Your task to perform on an android device: add a label to a message in the gmail app Image 0: 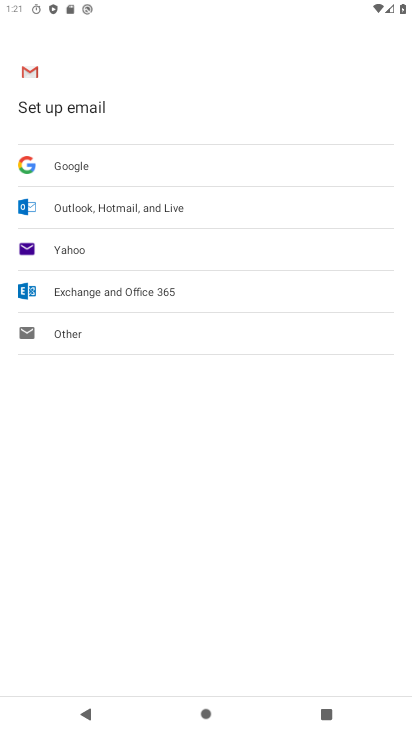
Step 0: drag from (216, 438) to (235, 291)
Your task to perform on an android device: add a label to a message in the gmail app Image 1: 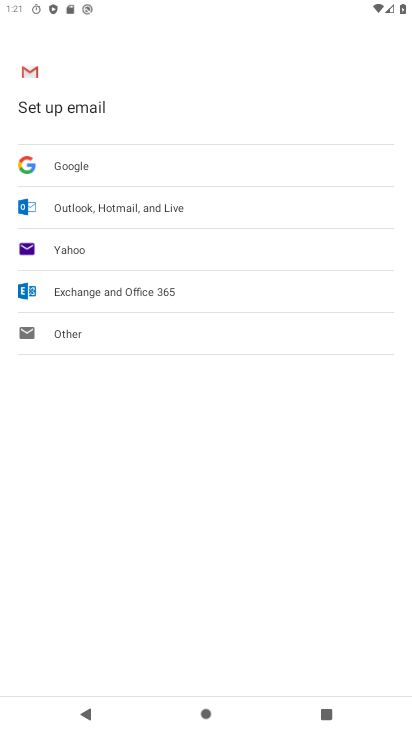
Step 1: press home button
Your task to perform on an android device: add a label to a message in the gmail app Image 2: 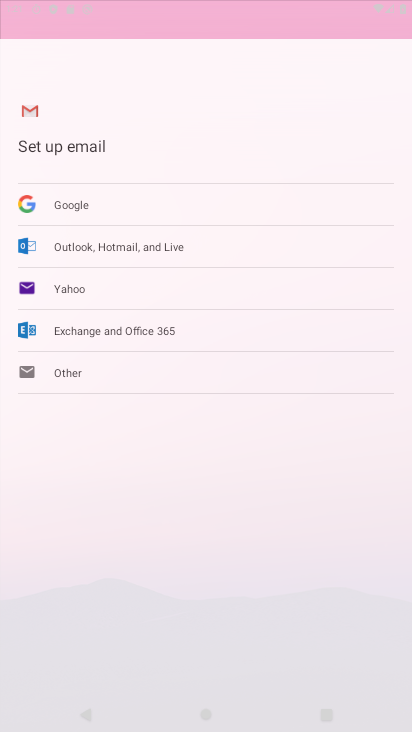
Step 2: drag from (277, 517) to (353, 113)
Your task to perform on an android device: add a label to a message in the gmail app Image 3: 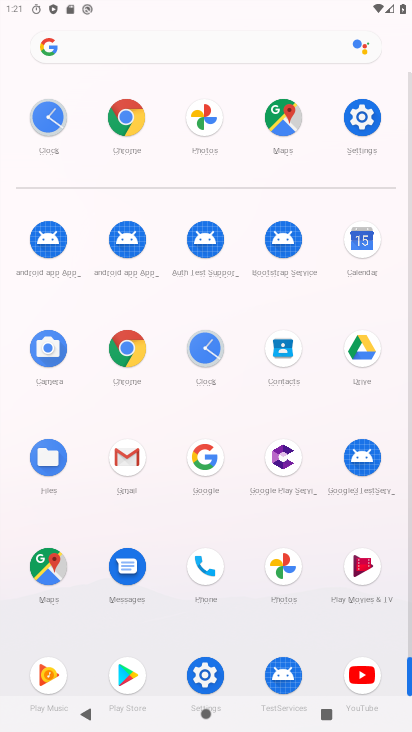
Step 3: click (121, 457)
Your task to perform on an android device: add a label to a message in the gmail app Image 4: 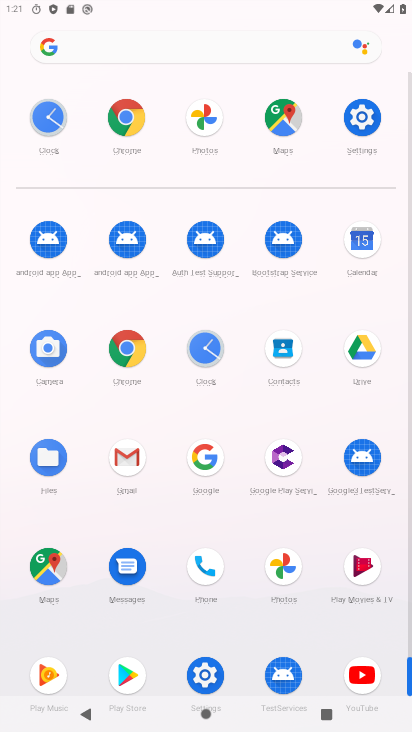
Step 4: click (121, 457)
Your task to perform on an android device: add a label to a message in the gmail app Image 5: 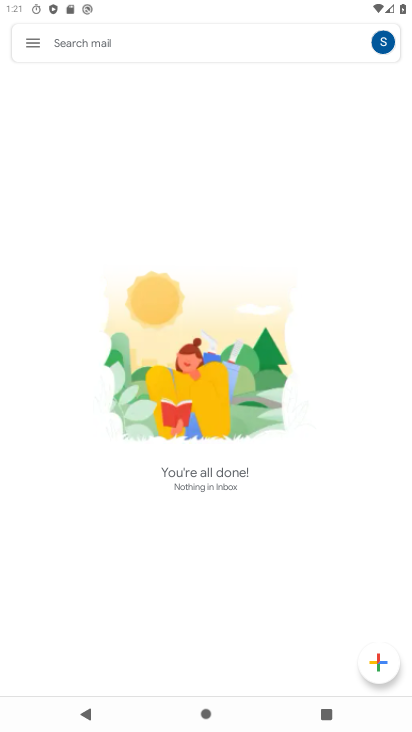
Step 5: drag from (174, 553) to (186, 373)
Your task to perform on an android device: add a label to a message in the gmail app Image 6: 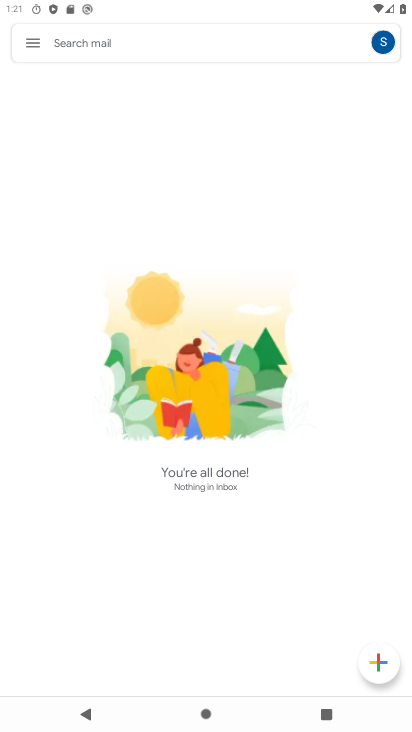
Step 6: click (345, 224)
Your task to perform on an android device: add a label to a message in the gmail app Image 7: 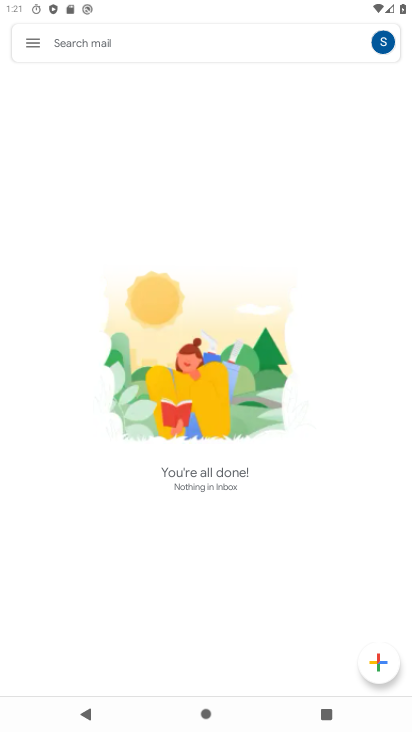
Step 7: task complete